Your task to perform on an android device: Check the weather Image 0: 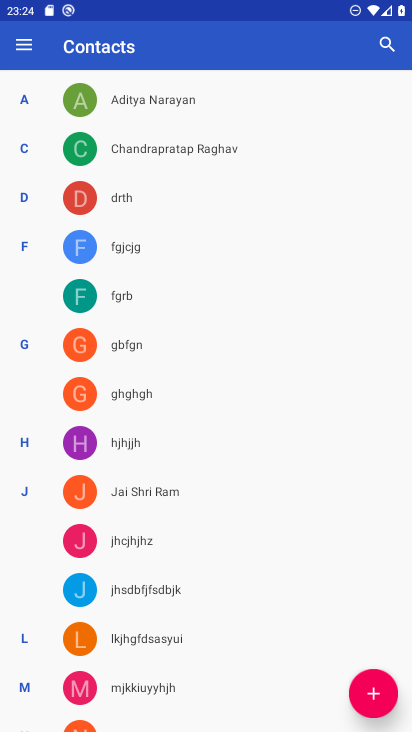
Step 0: press home button
Your task to perform on an android device: Check the weather Image 1: 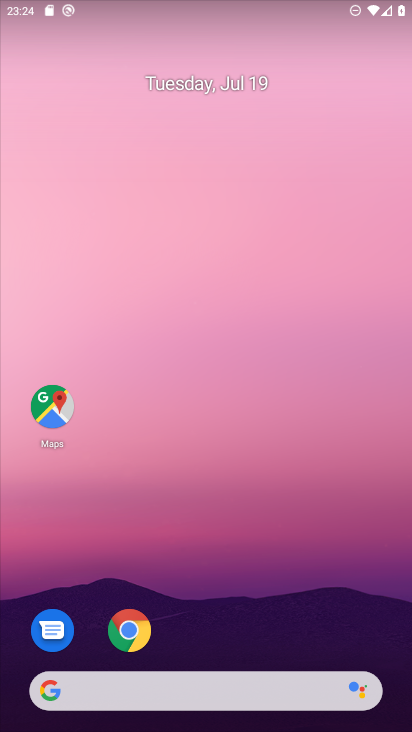
Step 1: drag from (204, 586) to (196, 198)
Your task to perform on an android device: Check the weather Image 2: 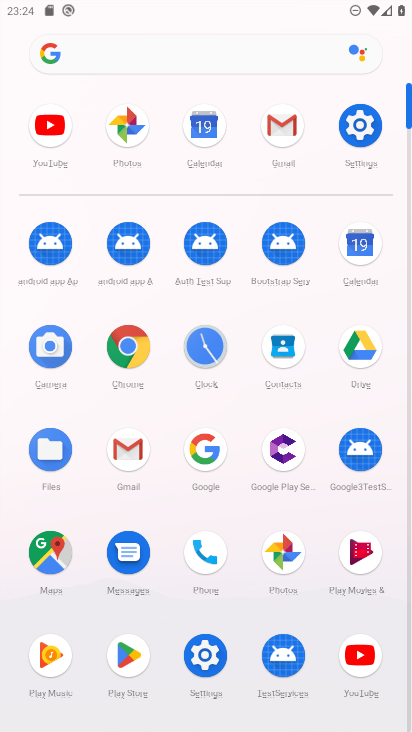
Step 2: click (219, 447)
Your task to perform on an android device: Check the weather Image 3: 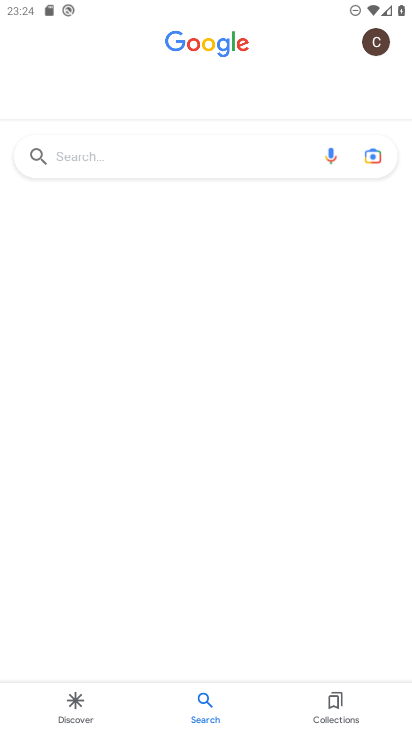
Step 3: click (111, 156)
Your task to perform on an android device: Check the weather Image 4: 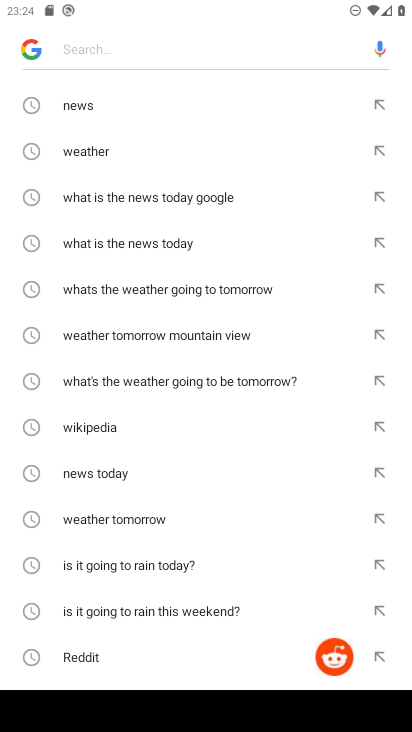
Step 4: click (119, 151)
Your task to perform on an android device: Check the weather Image 5: 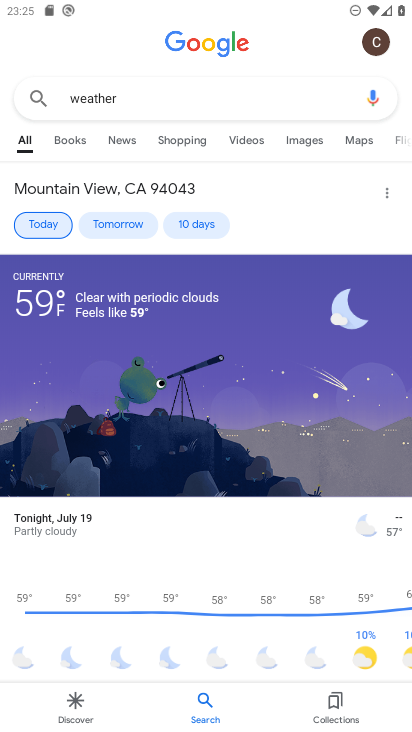
Step 5: task complete